Your task to perform on an android device: Open display settings Image 0: 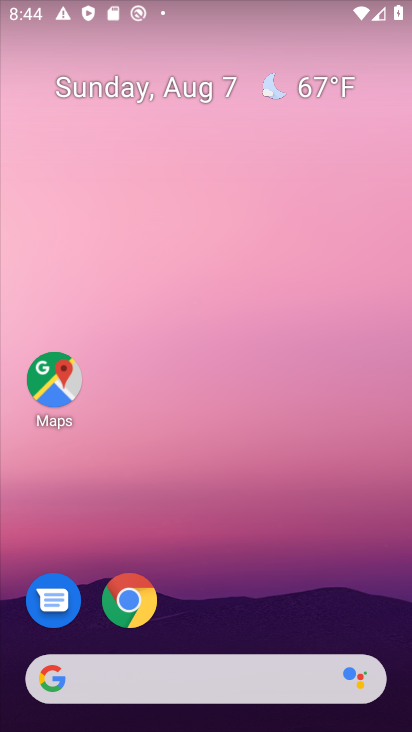
Step 0: drag from (207, 550) to (250, 109)
Your task to perform on an android device: Open display settings Image 1: 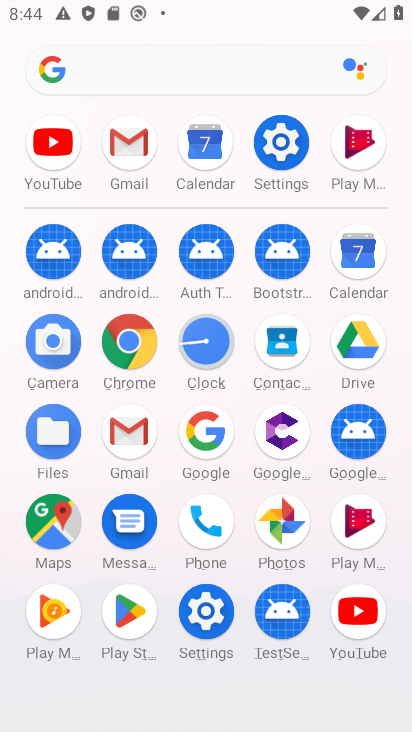
Step 1: click (277, 147)
Your task to perform on an android device: Open display settings Image 2: 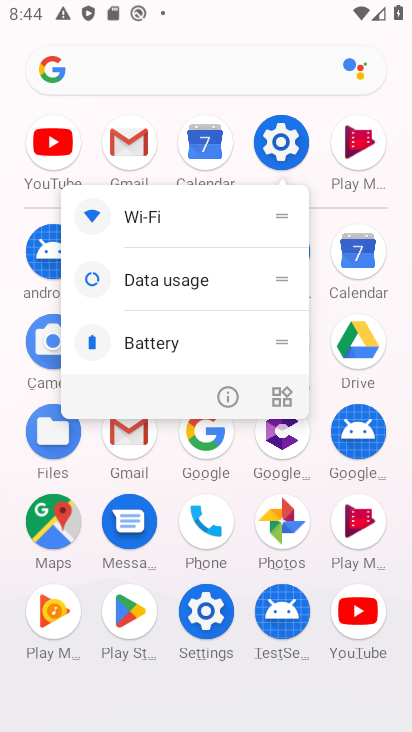
Step 2: click (280, 137)
Your task to perform on an android device: Open display settings Image 3: 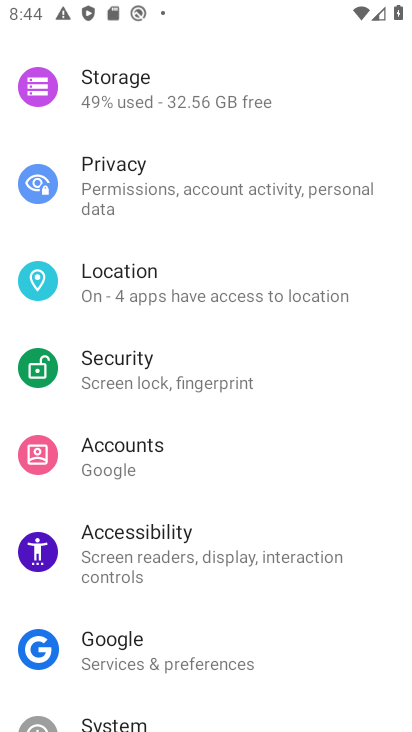
Step 3: click (166, 702)
Your task to perform on an android device: Open display settings Image 4: 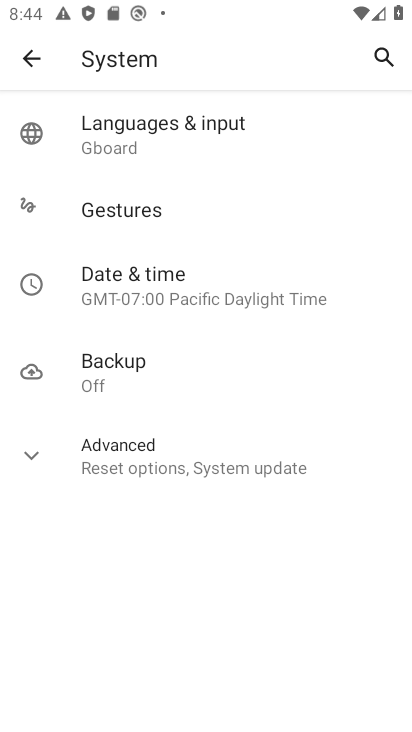
Step 4: click (42, 59)
Your task to perform on an android device: Open display settings Image 5: 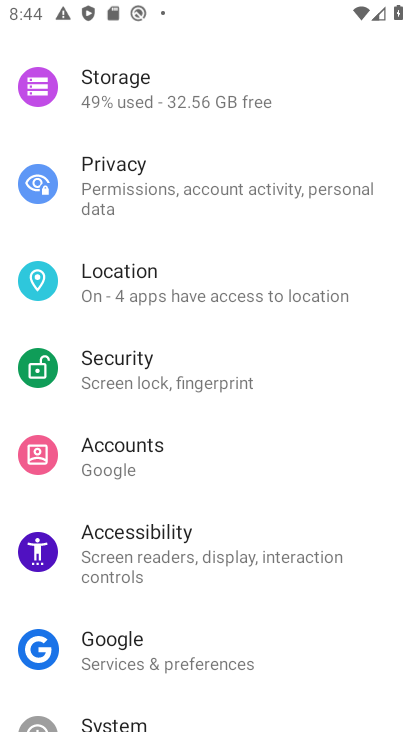
Step 5: drag from (174, 190) to (100, 671)
Your task to perform on an android device: Open display settings Image 6: 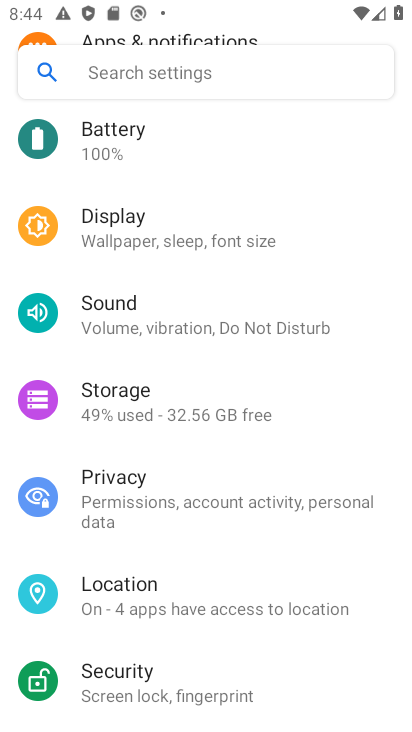
Step 6: click (212, 247)
Your task to perform on an android device: Open display settings Image 7: 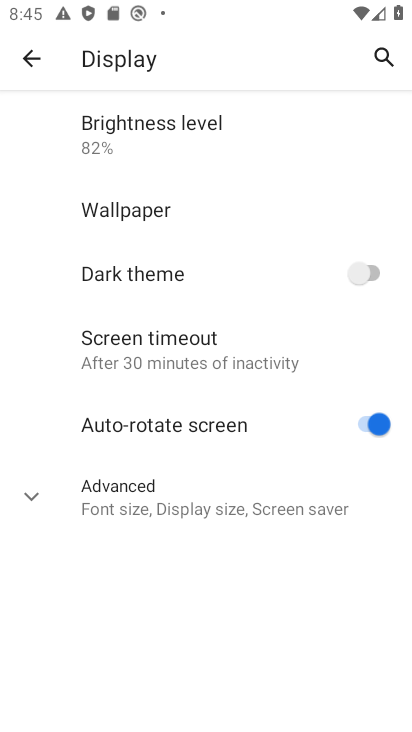
Step 7: task complete